Your task to perform on an android device: Search for alienware aurora on newegg, select the first entry, and add it to the cart. Image 0: 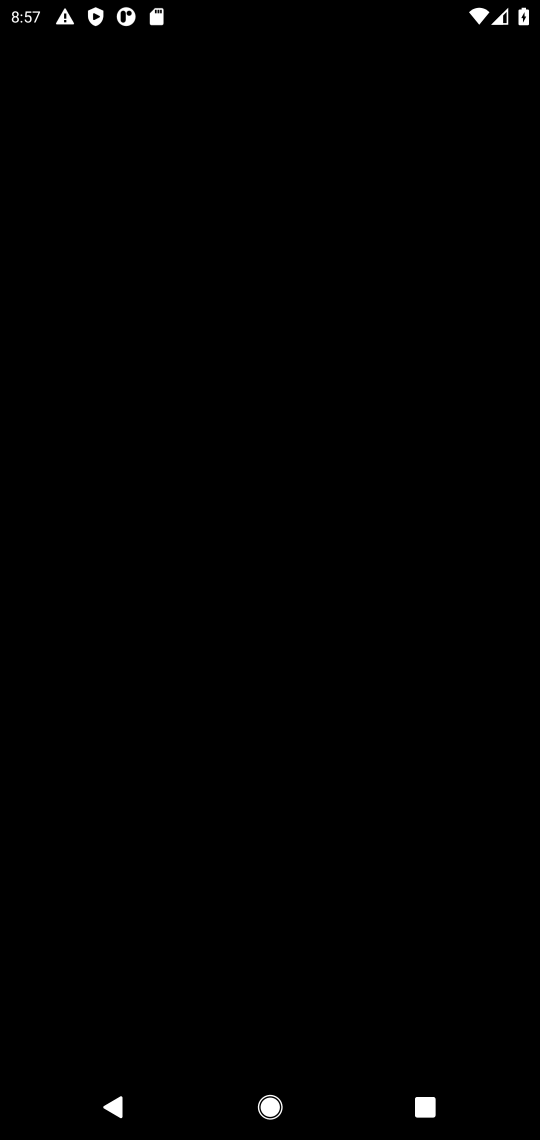
Step 0: press home button
Your task to perform on an android device: Search for alienware aurora on newegg, select the first entry, and add it to the cart. Image 1: 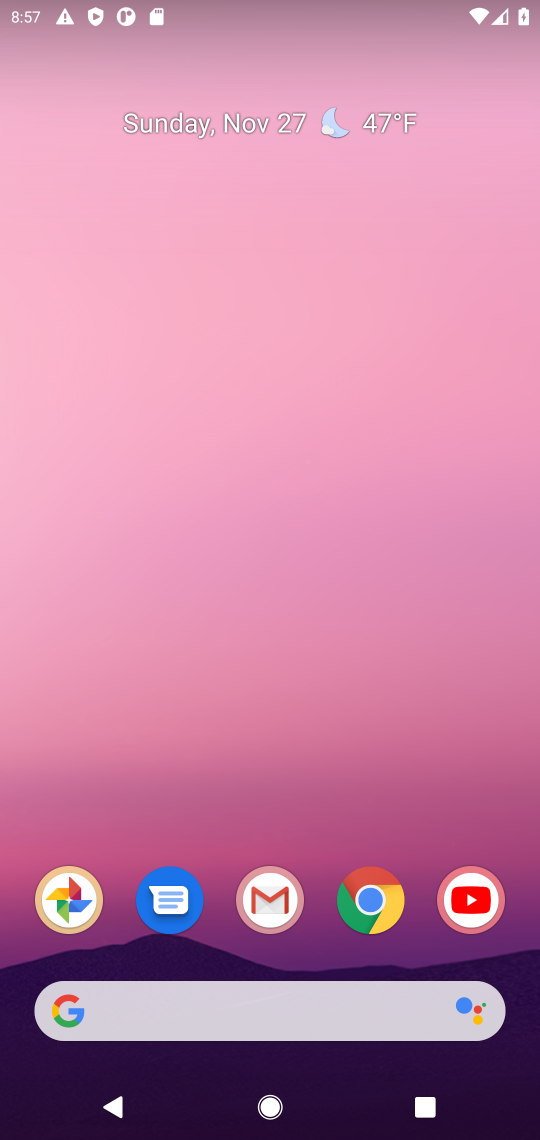
Step 1: click (375, 907)
Your task to perform on an android device: Search for alienware aurora on newegg, select the first entry, and add it to the cart. Image 2: 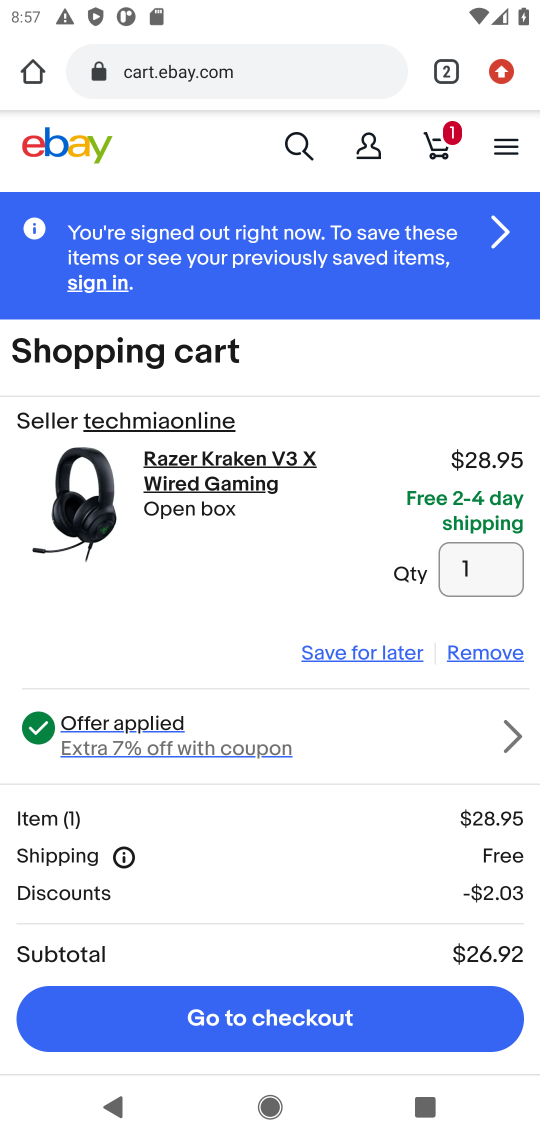
Step 2: click (179, 61)
Your task to perform on an android device: Search for alienware aurora on newegg, select the first entry, and add it to the cart. Image 3: 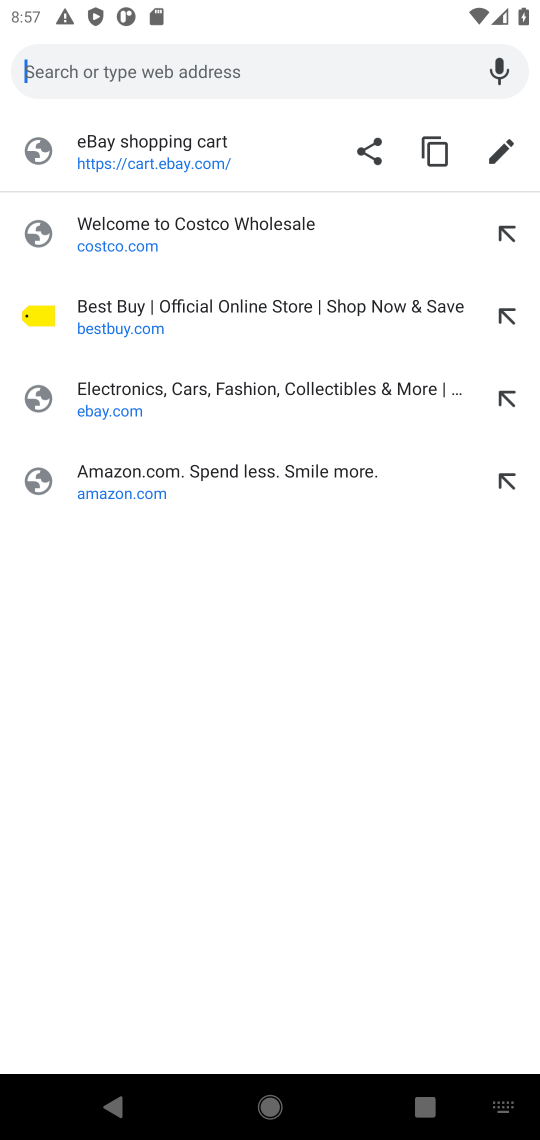
Step 3: type "newegg.com"
Your task to perform on an android device: Search for alienware aurora on newegg, select the first entry, and add it to the cart. Image 4: 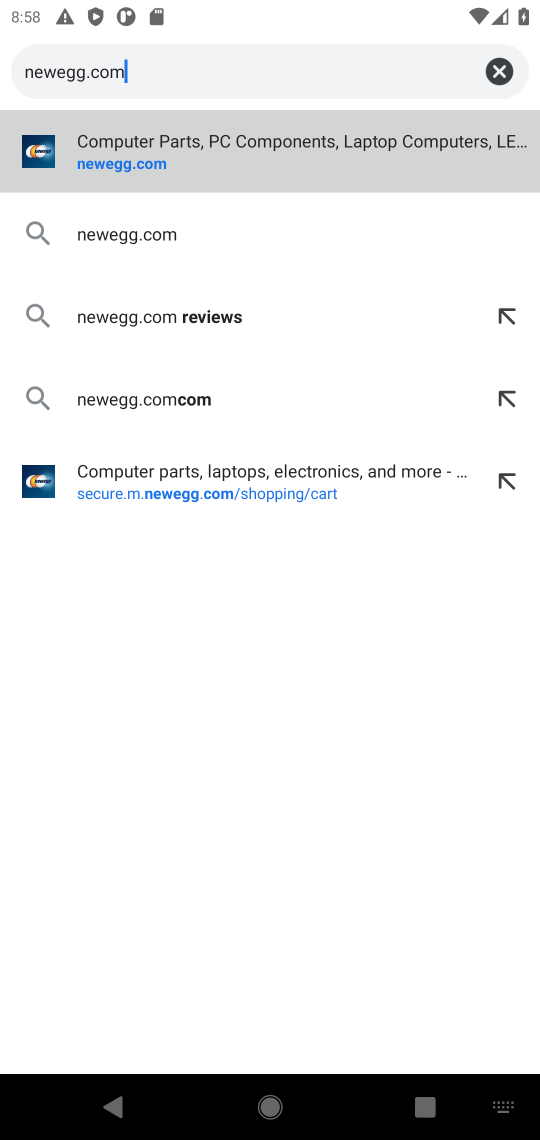
Step 4: click (91, 167)
Your task to perform on an android device: Search for alienware aurora on newegg, select the first entry, and add it to the cart. Image 5: 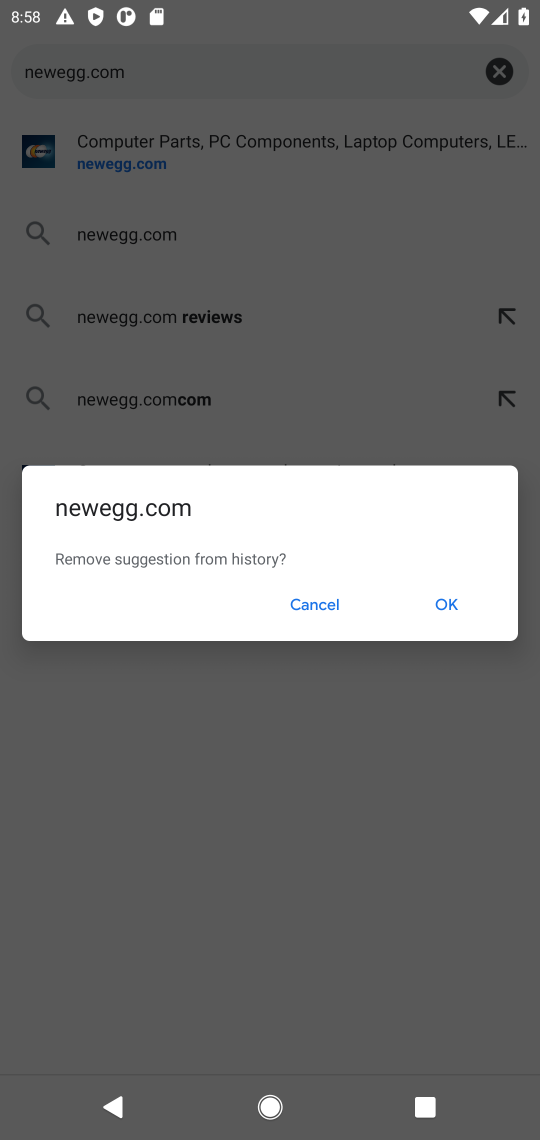
Step 5: click (302, 591)
Your task to perform on an android device: Search for alienware aurora on newegg, select the first entry, and add it to the cart. Image 6: 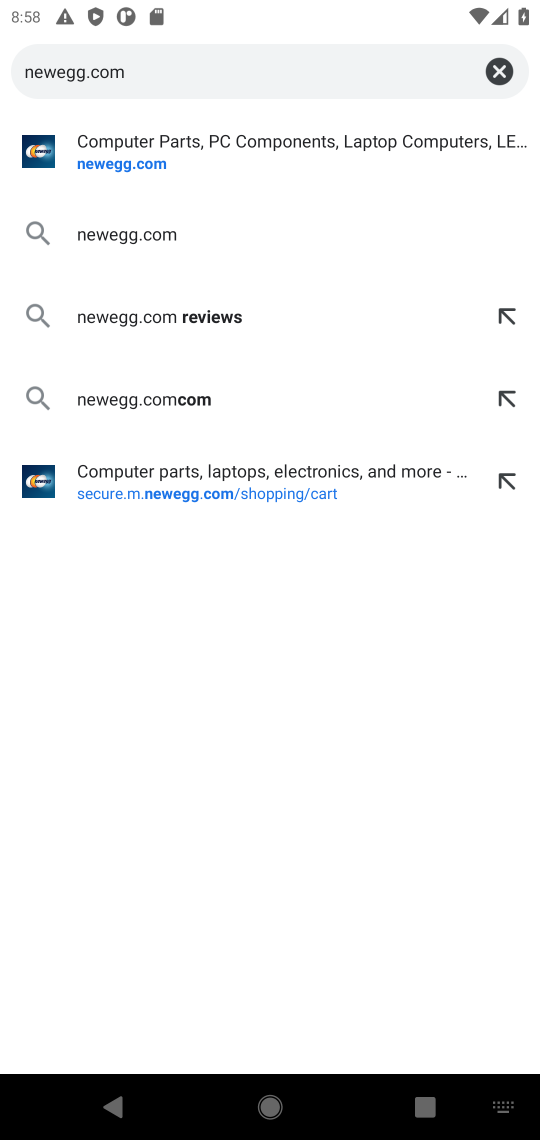
Step 6: click (105, 165)
Your task to perform on an android device: Search for alienware aurora on newegg, select the first entry, and add it to the cart. Image 7: 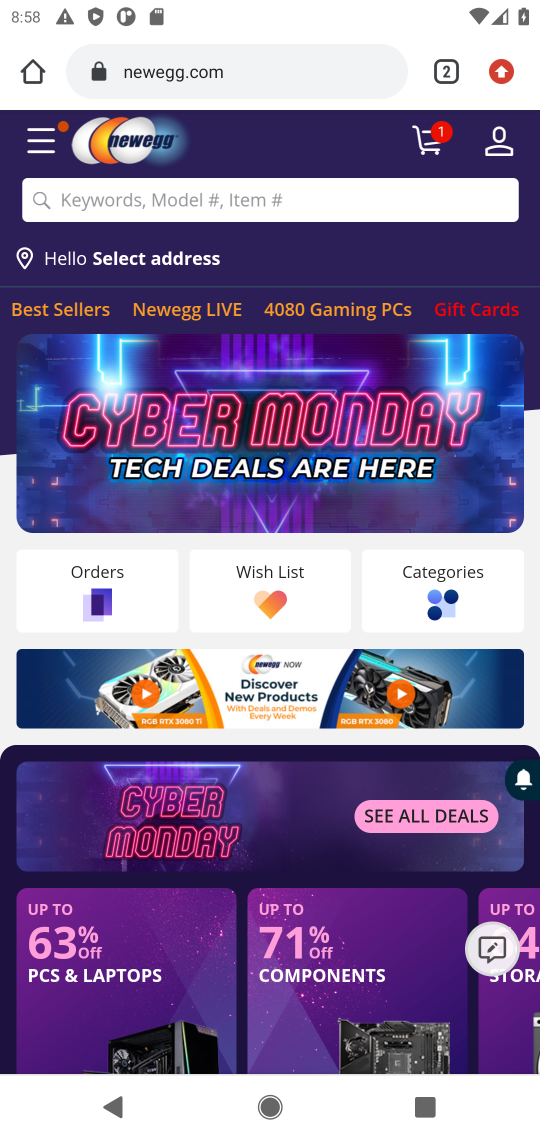
Step 7: click (97, 207)
Your task to perform on an android device: Search for alienware aurora on newegg, select the first entry, and add it to the cart. Image 8: 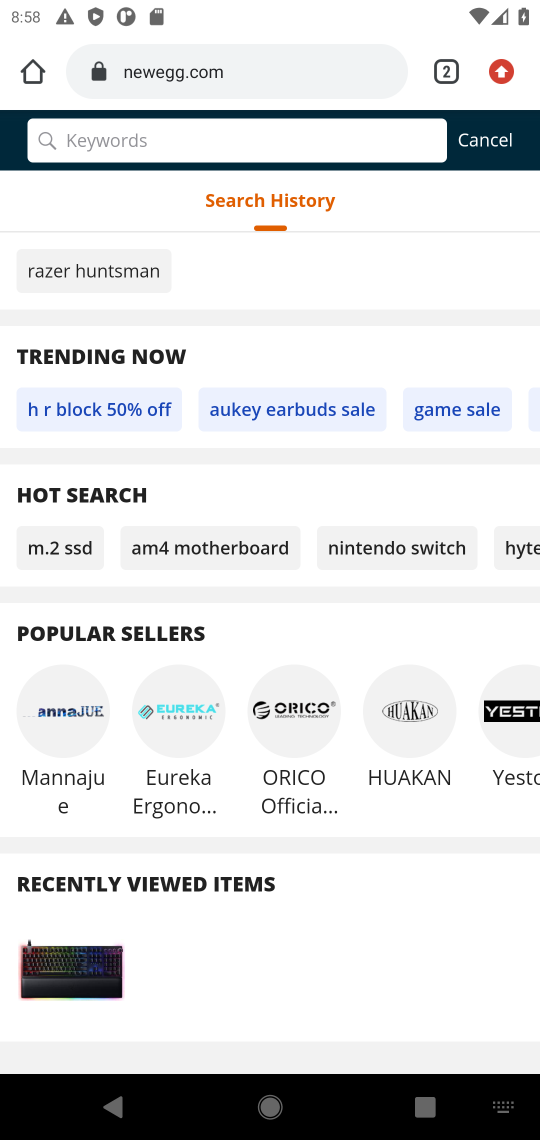
Step 8: type "alienware aurora "
Your task to perform on an android device: Search for alienware aurora on newegg, select the first entry, and add it to the cart. Image 9: 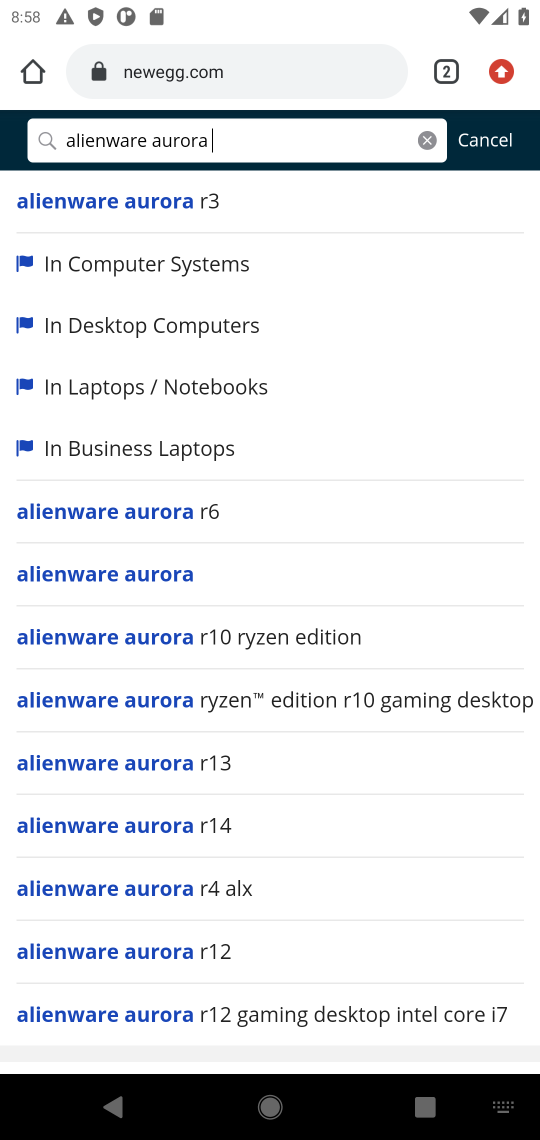
Step 9: click (102, 565)
Your task to perform on an android device: Search for alienware aurora on newegg, select the first entry, and add it to the cart. Image 10: 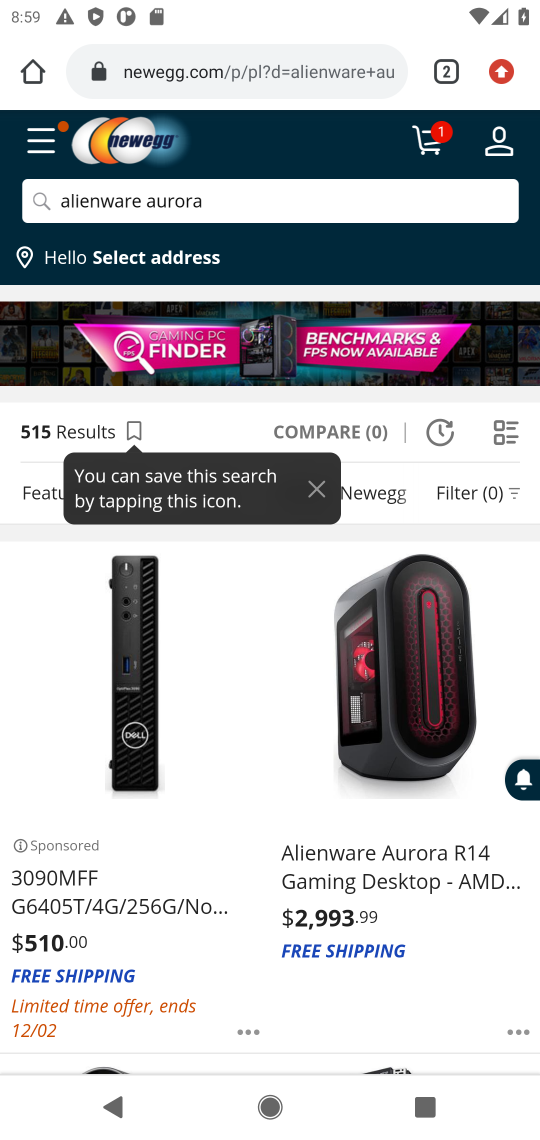
Step 10: task complete